Your task to perform on an android device: create a new album in the google photos Image 0: 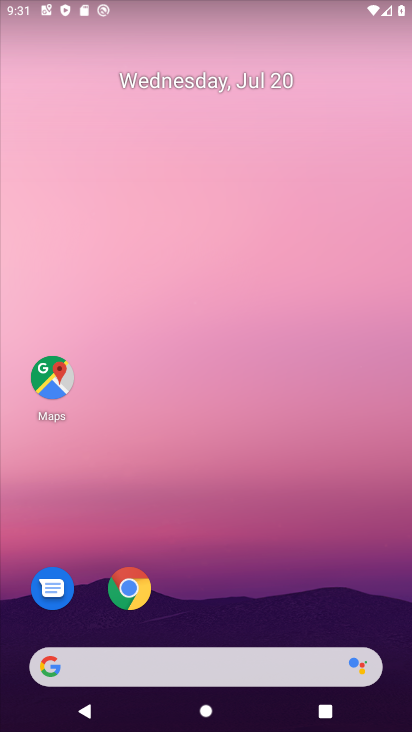
Step 0: press home button
Your task to perform on an android device: create a new album in the google photos Image 1: 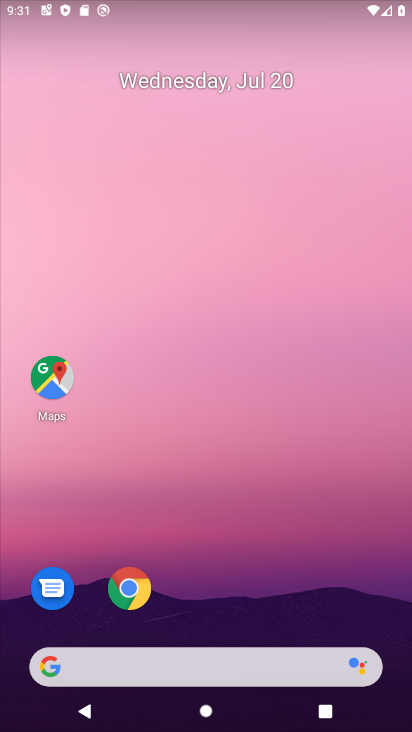
Step 1: drag from (210, 622) to (255, 141)
Your task to perform on an android device: create a new album in the google photos Image 2: 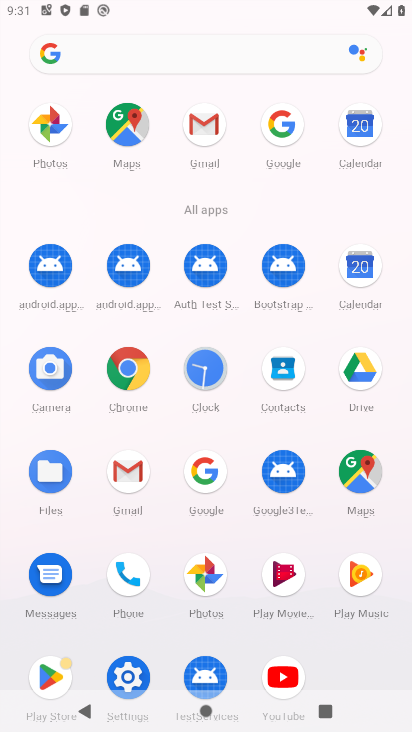
Step 2: click (211, 572)
Your task to perform on an android device: create a new album in the google photos Image 3: 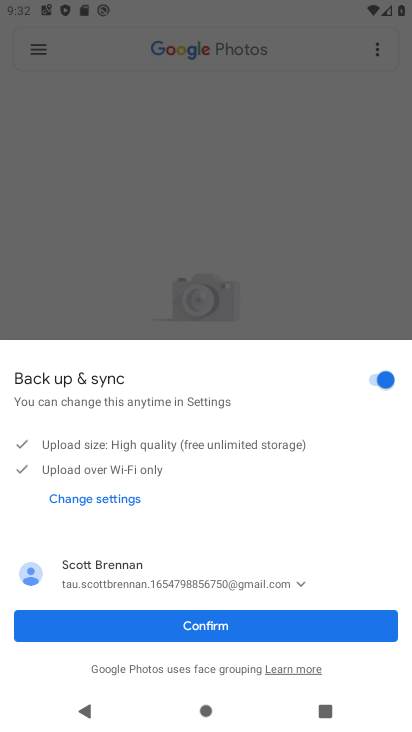
Step 3: click (245, 621)
Your task to perform on an android device: create a new album in the google photos Image 4: 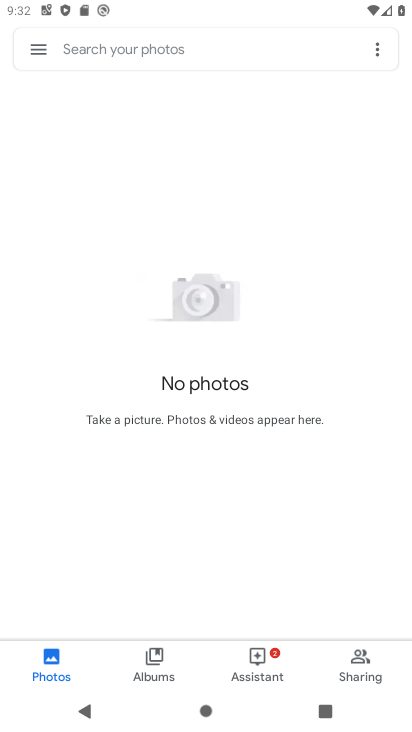
Step 4: click (49, 669)
Your task to perform on an android device: create a new album in the google photos Image 5: 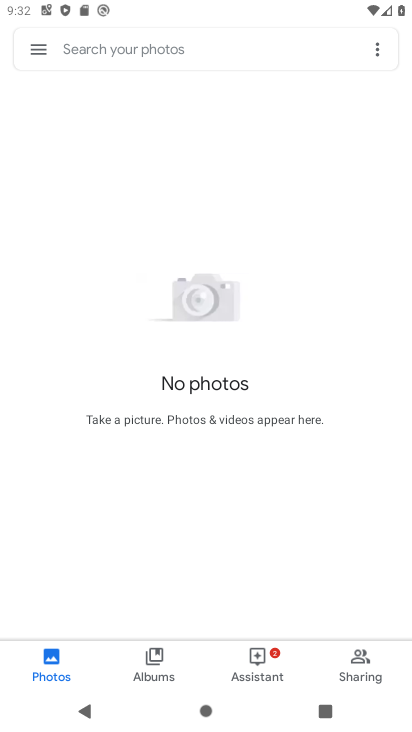
Step 5: click (157, 661)
Your task to perform on an android device: create a new album in the google photos Image 6: 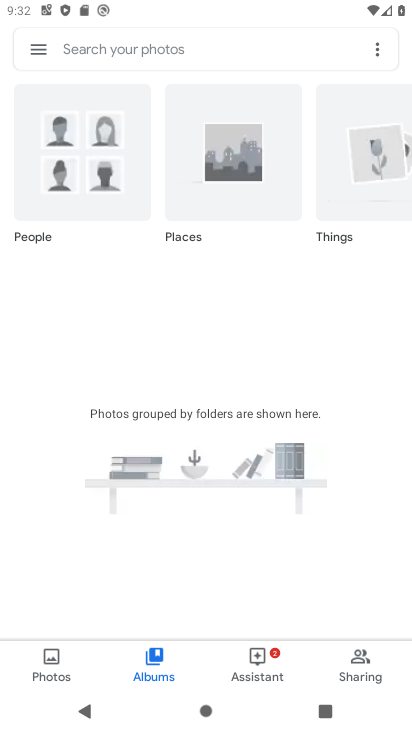
Step 6: task complete